Your task to perform on an android device: change alarm snooze length Image 0: 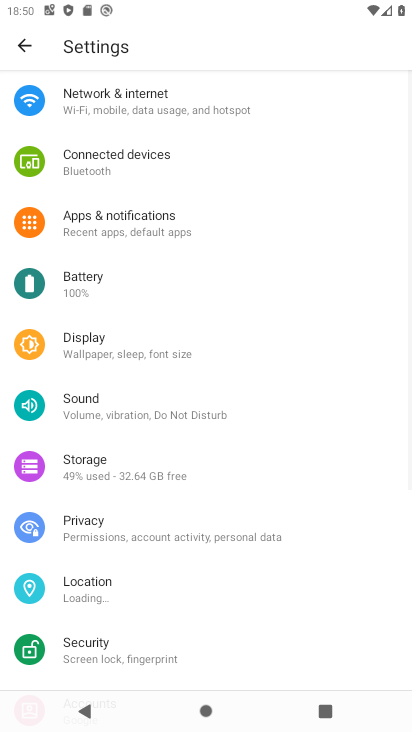
Step 0: press home button
Your task to perform on an android device: change alarm snooze length Image 1: 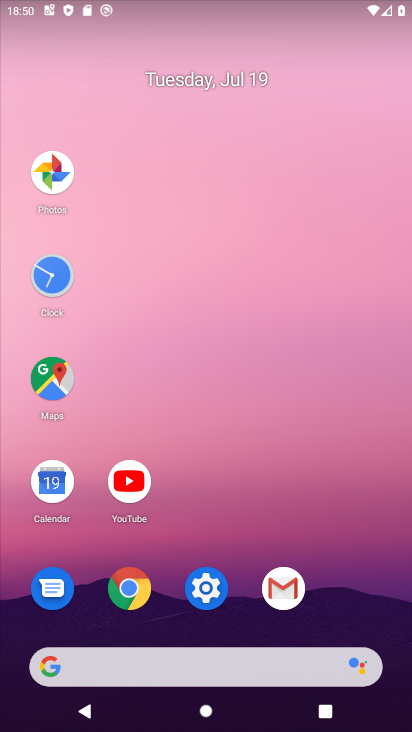
Step 1: click (49, 282)
Your task to perform on an android device: change alarm snooze length Image 2: 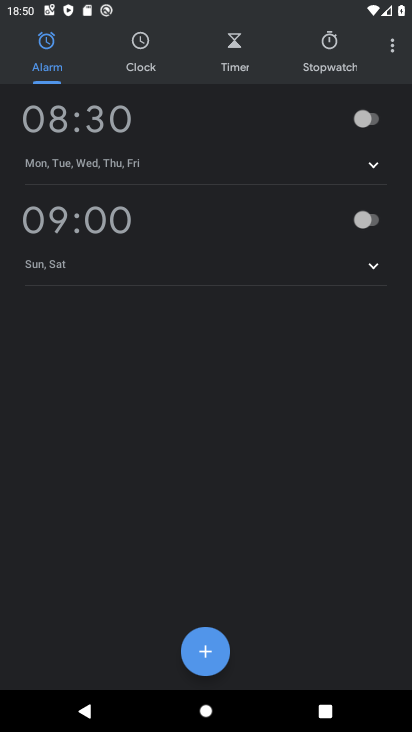
Step 2: click (393, 46)
Your task to perform on an android device: change alarm snooze length Image 3: 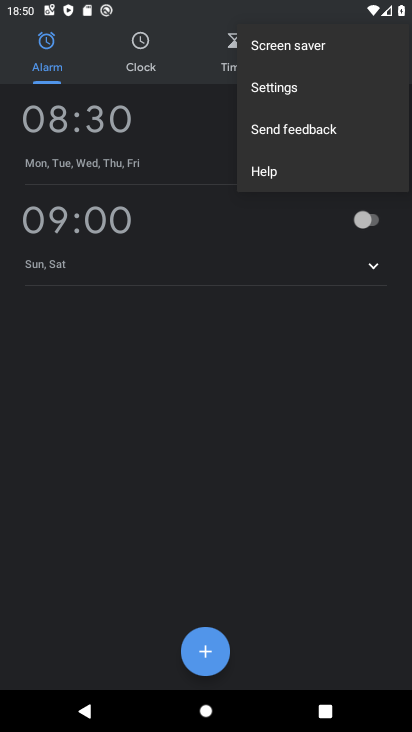
Step 3: click (289, 77)
Your task to perform on an android device: change alarm snooze length Image 4: 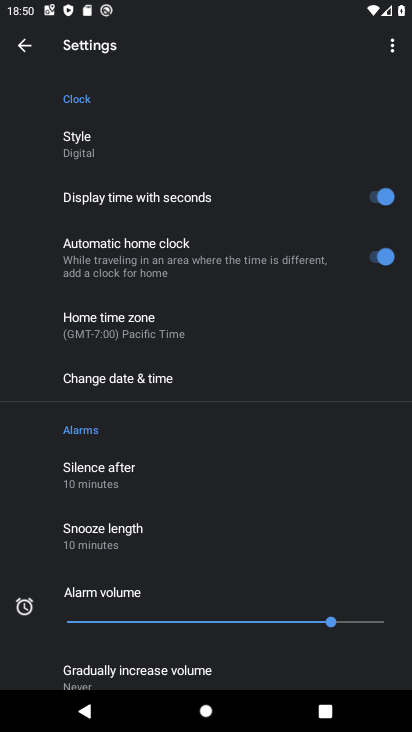
Step 4: click (120, 522)
Your task to perform on an android device: change alarm snooze length Image 5: 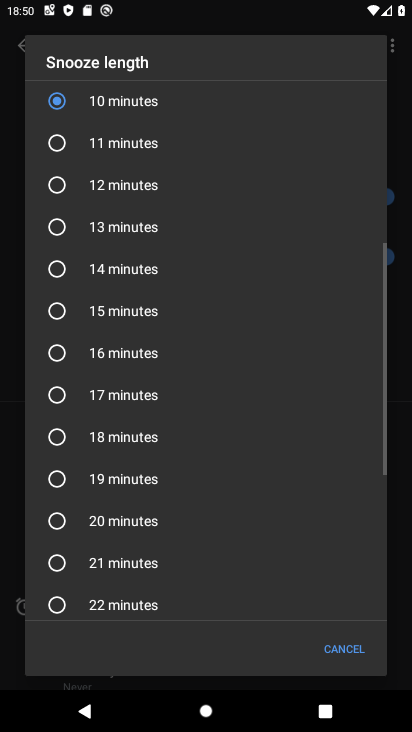
Step 5: click (61, 309)
Your task to perform on an android device: change alarm snooze length Image 6: 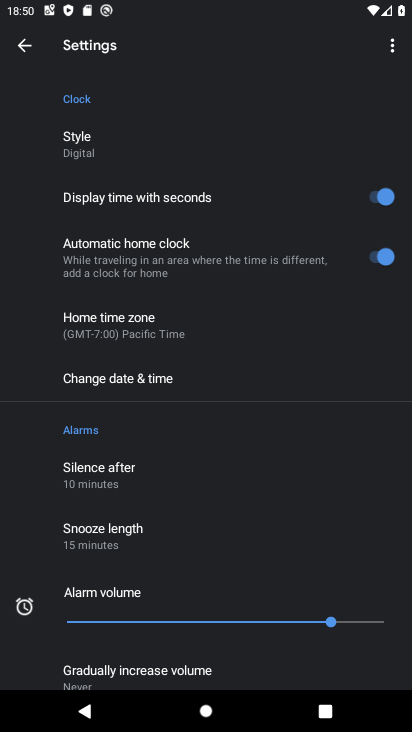
Step 6: task complete